Your task to perform on an android device: change notifications settings Image 0: 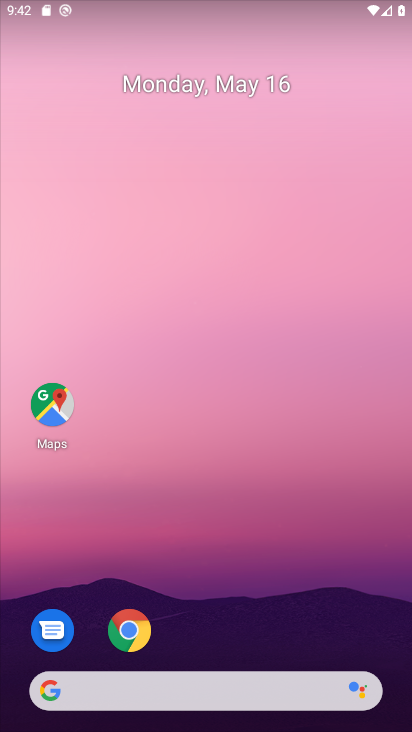
Step 0: drag from (228, 569) to (270, 85)
Your task to perform on an android device: change notifications settings Image 1: 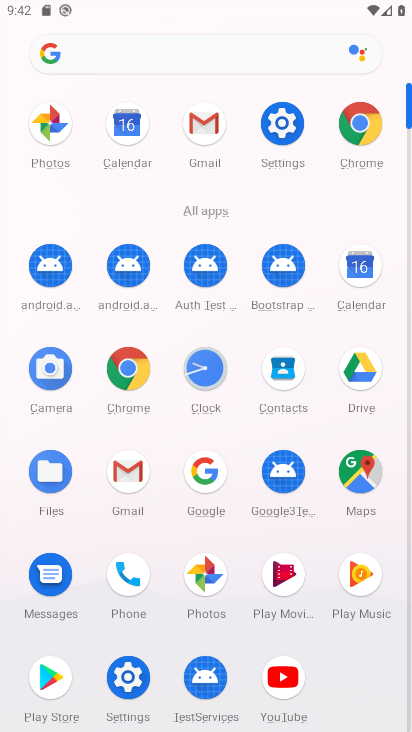
Step 1: click (287, 130)
Your task to perform on an android device: change notifications settings Image 2: 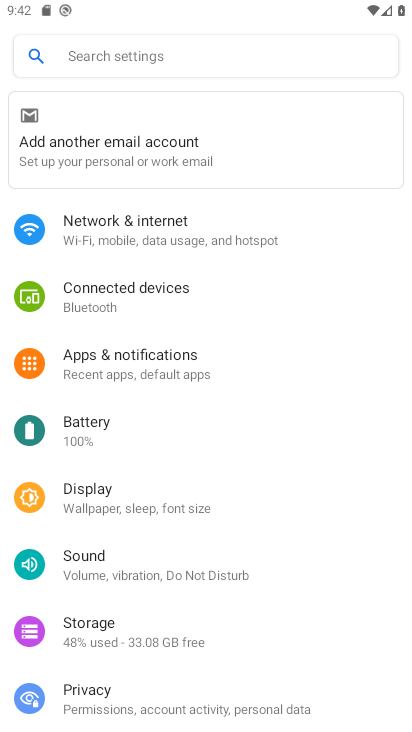
Step 2: click (176, 348)
Your task to perform on an android device: change notifications settings Image 3: 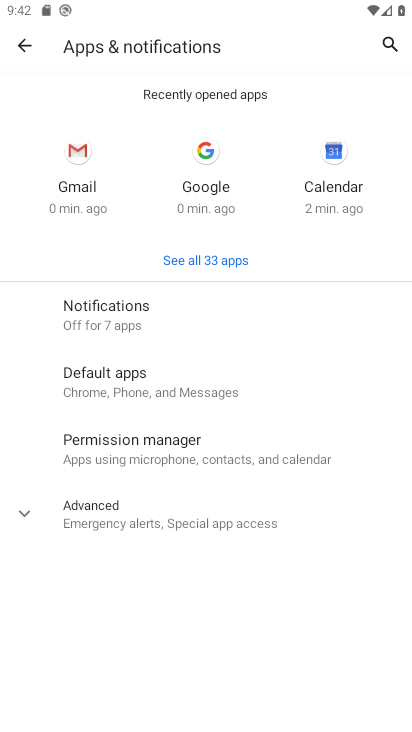
Step 3: click (185, 316)
Your task to perform on an android device: change notifications settings Image 4: 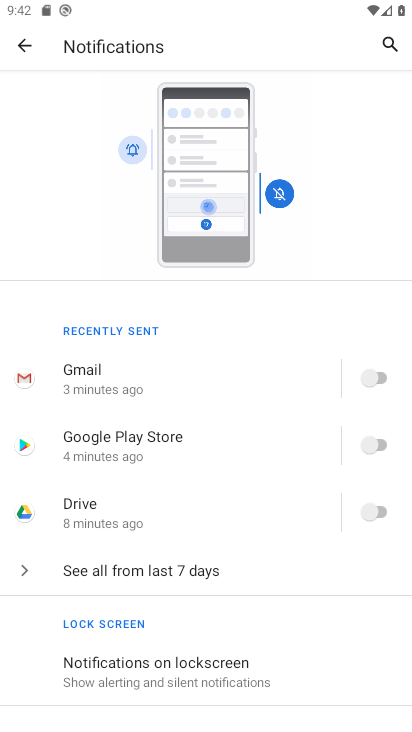
Step 4: click (181, 567)
Your task to perform on an android device: change notifications settings Image 5: 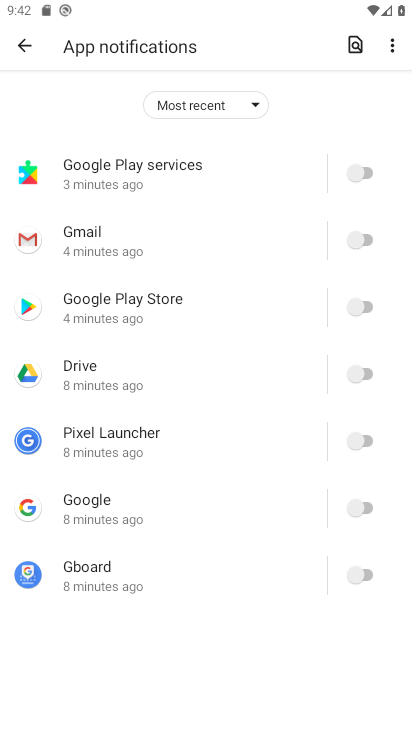
Step 5: click (359, 165)
Your task to perform on an android device: change notifications settings Image 6: 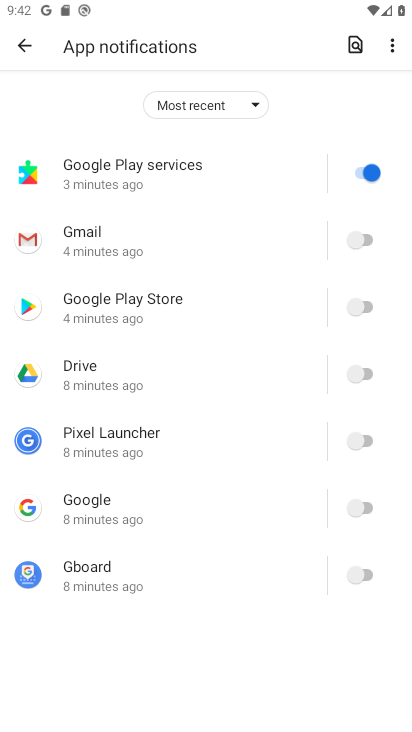
Step 6: click (355, 233)
Your task to perform on an android device: change notifications settings Image 7: 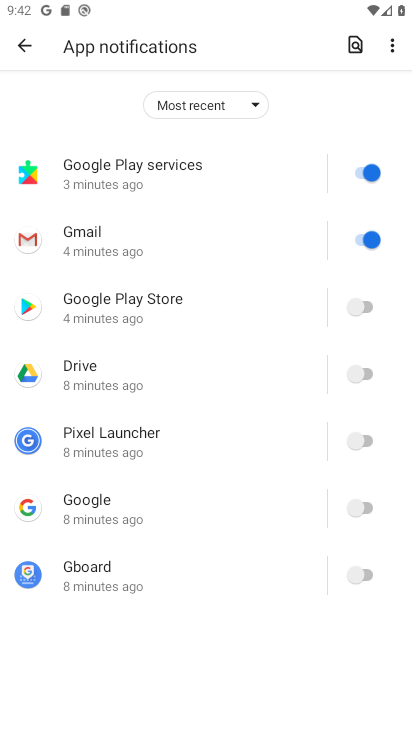
Step 7: click (363, 299)
Your task to perform on an android device: change notifications settings Image 8: 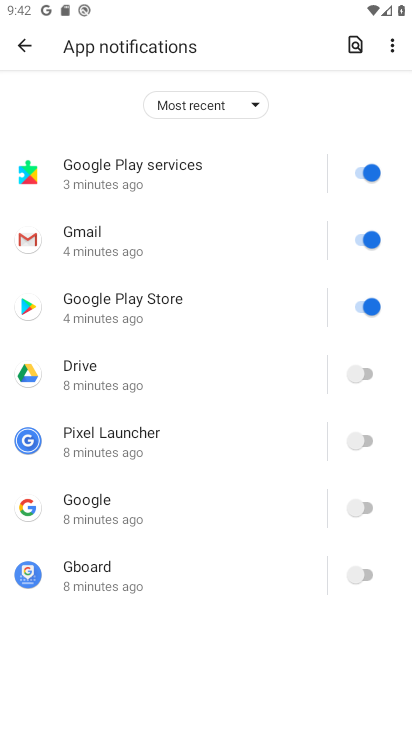
Step 8: click (363, 359)
Your task to perform on an android device: change notifications settings Image 9: 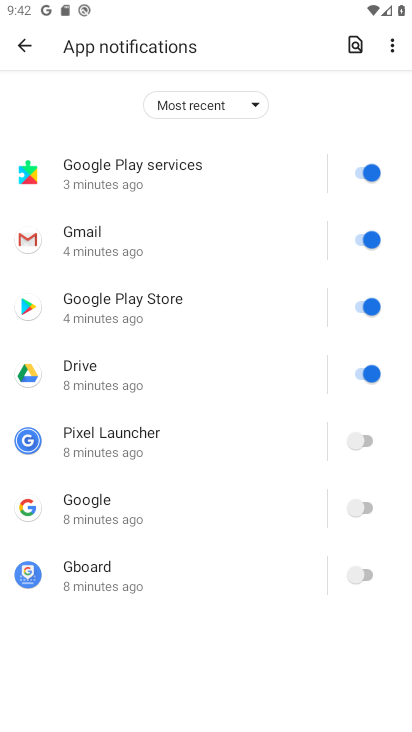
Step 9: click (362, 432)
Your task to perform on an android device: change notifications settings Image 10: 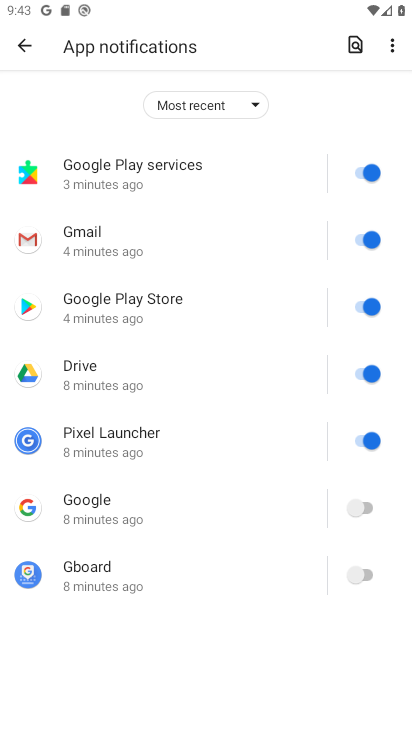
Step 10: click (360, 507)
Your task to perform on an android device: change notifications settings Image 11: 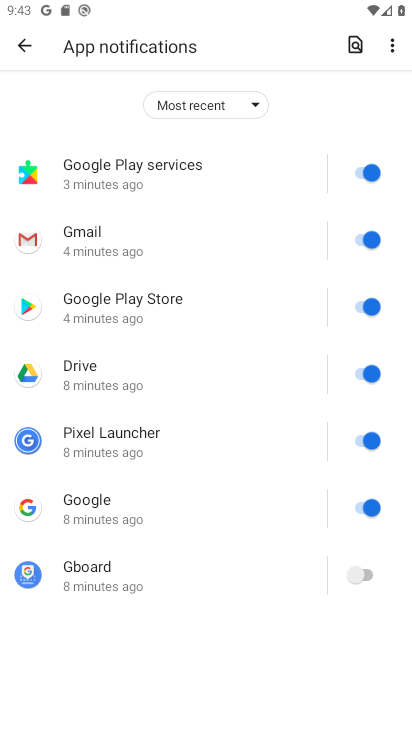
Step 11: click (359, 563)
Your task to perform on an android device: change notifications settings Image 12: 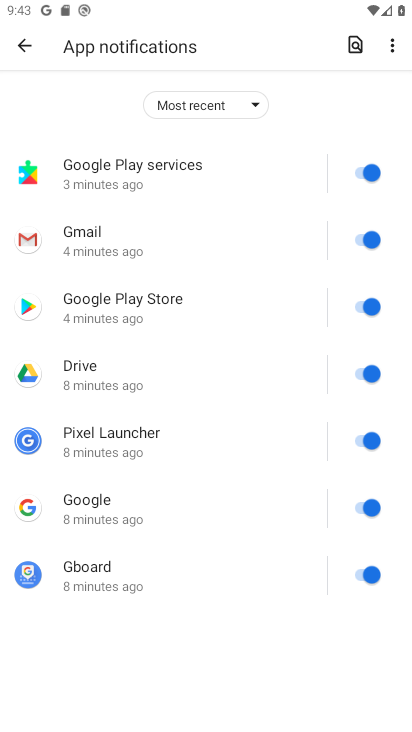
Step 12: task complete